Your task to perform on an android device: turn on translation in the chrome app Image 0: 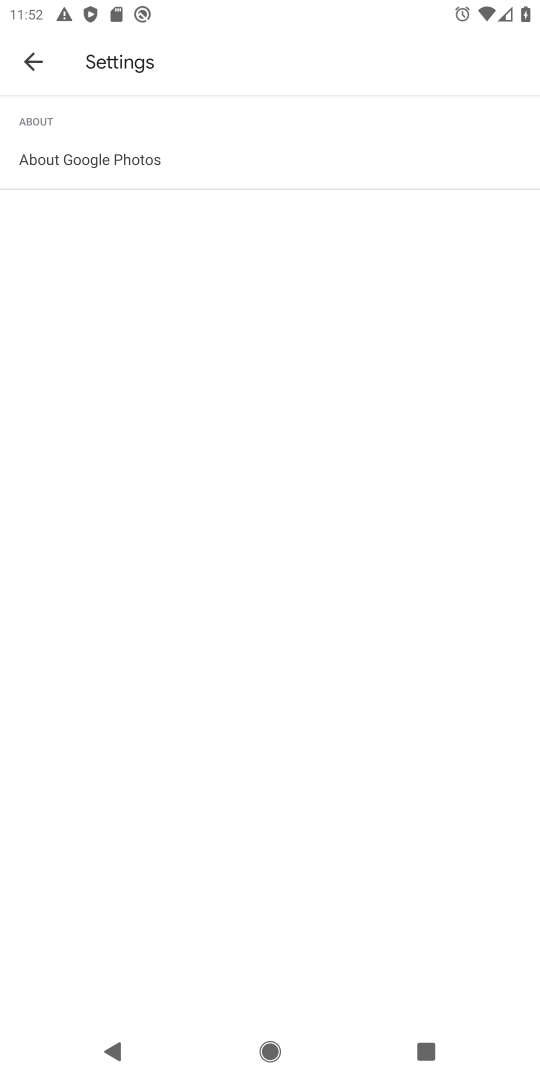
Step 0: press home button
Your task to perform on an android device: turn on translation in the chrome app Image 1: 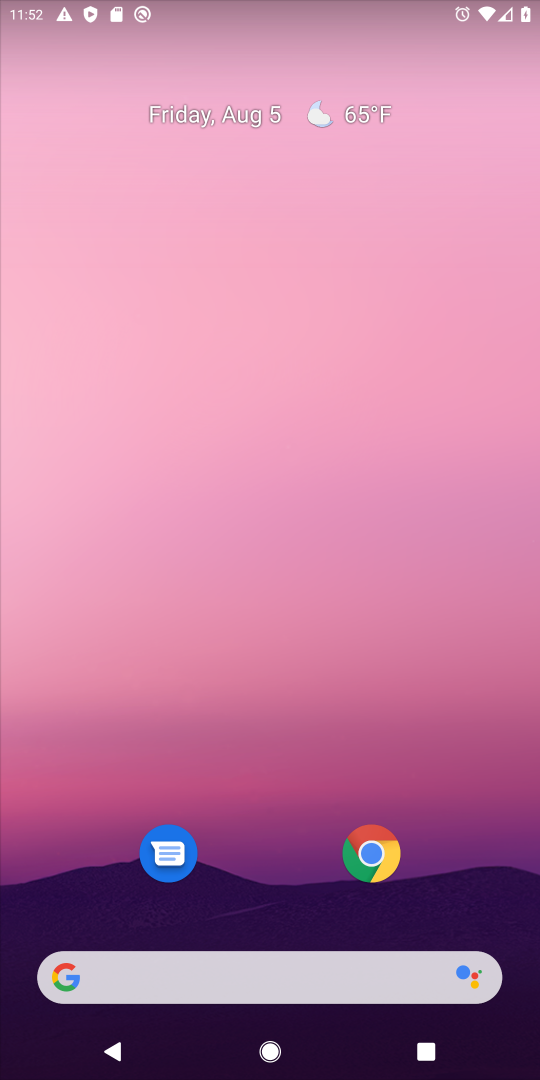
Step 1: click (361, 844)
Your task to perform on an android device: turn on translation in the chrome app Image 2: 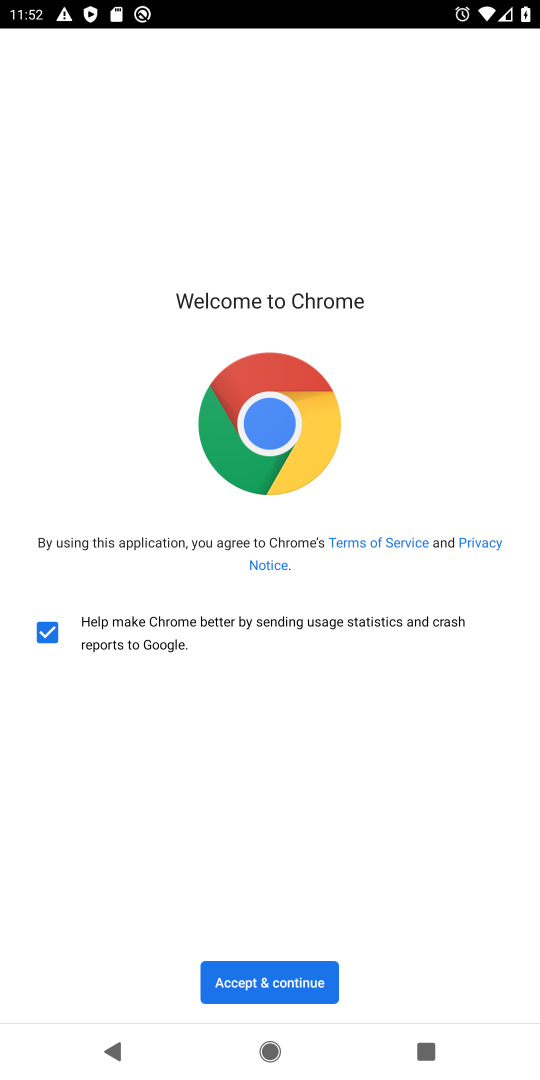
Step 2: click (278, 974)
Your task to perform on an android device: turn on translation in the chrome app Image 3: 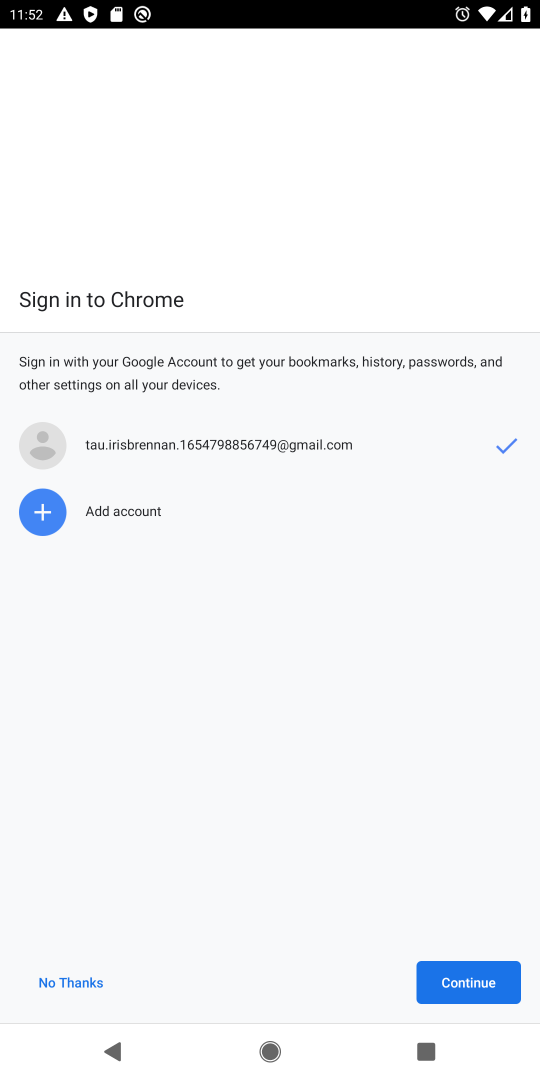
Step 3: click (443, 954)
Your task to perform on an android device: turn on translation in the chrome app Image 4: 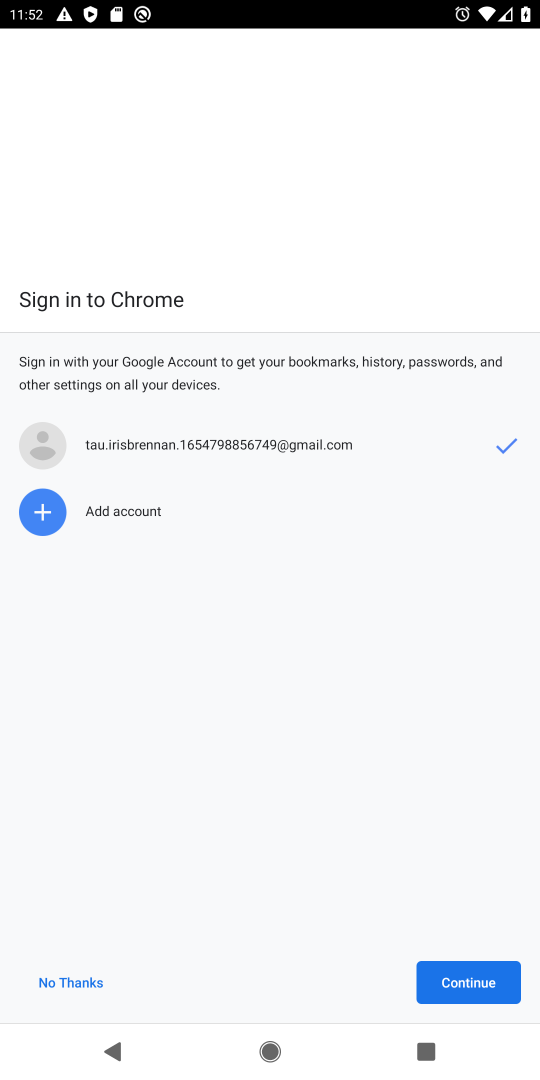
Step 4: click (448, 972)
Your task to perform on an android device: turn on translation in the chrome app Image 5: 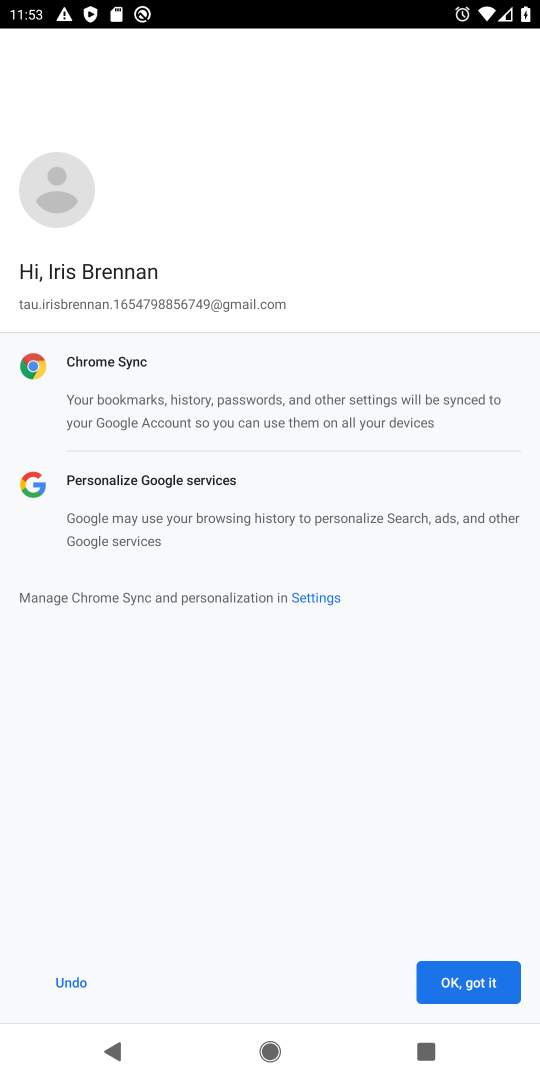
Step 5: click (448, 972)
Your task to perform on an android device: turn on translation in the chrome app Image 6: 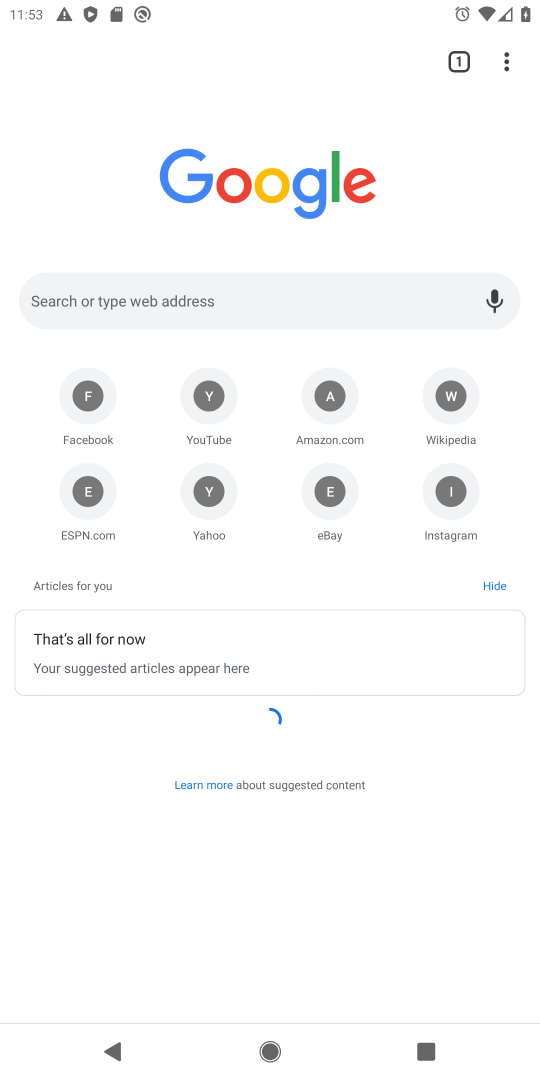
Step 6: drag from (511, 75) to (305, 517)
Your task to perform on an android device: turn on translation in the chrome app Image 7: 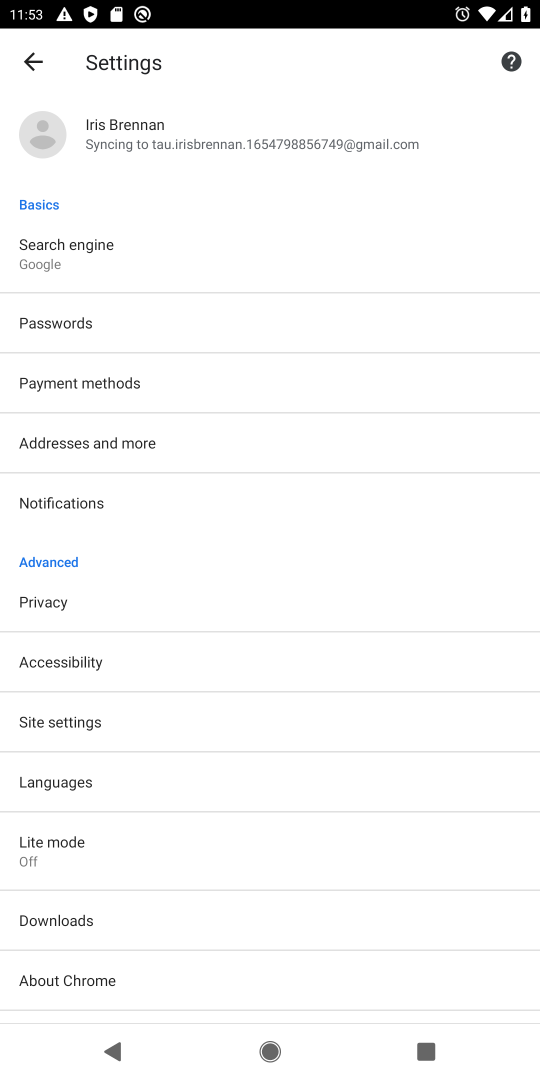
Step 7: click (172, 794)
Your task to perform on an android device: turn on translation in the chrome app Image 8: 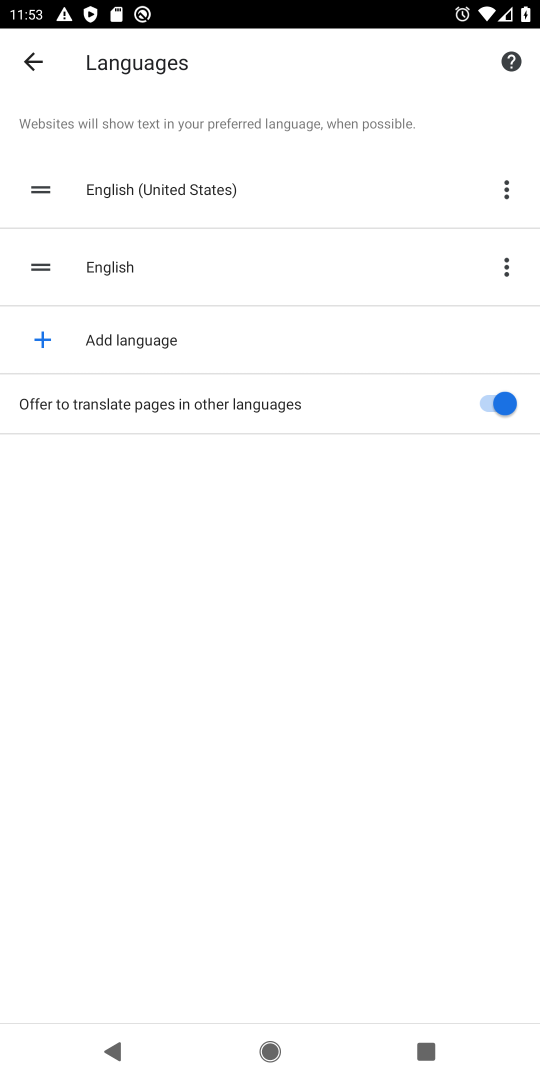
Step 8: click (502, 406)
Your task to perform on an android device: turn on translation in the chrome app Image 9: 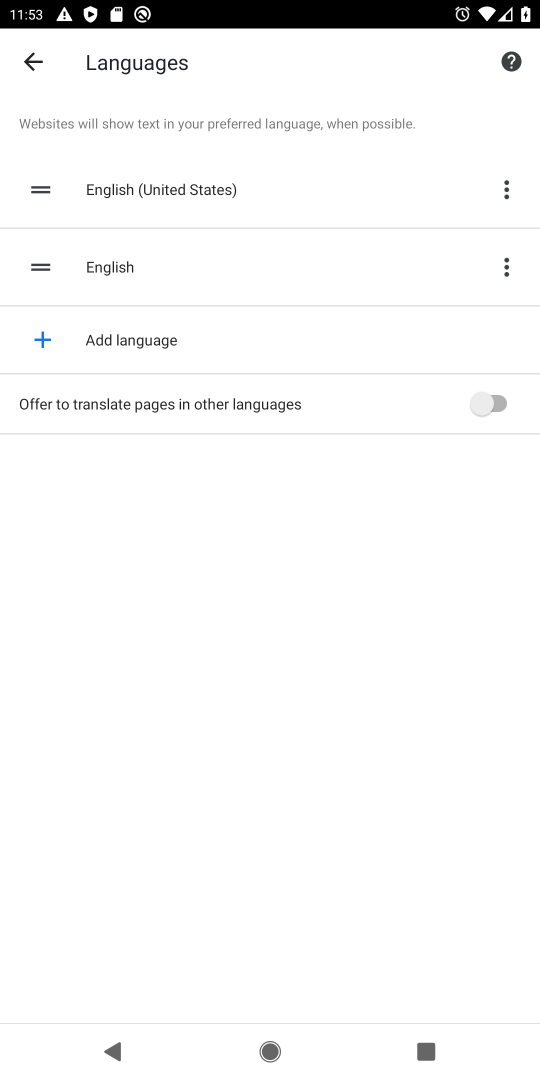
Step 9: task complete